Your task to perform on an android device: Open CNN.com Image 0: 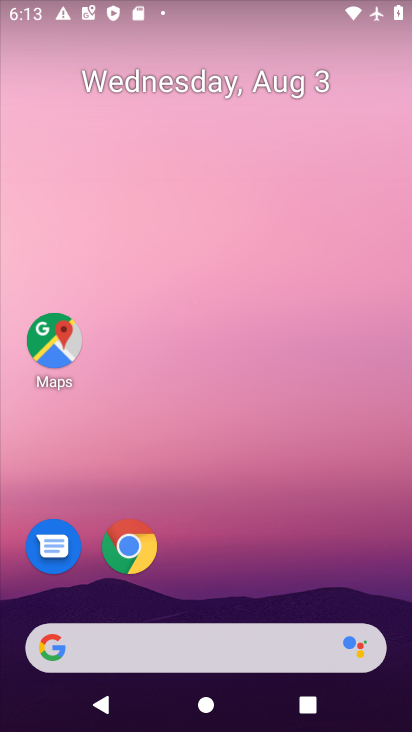
Step 0: click (54, 652)
Your task to perform on an android device: Open CNN.com Image 1: 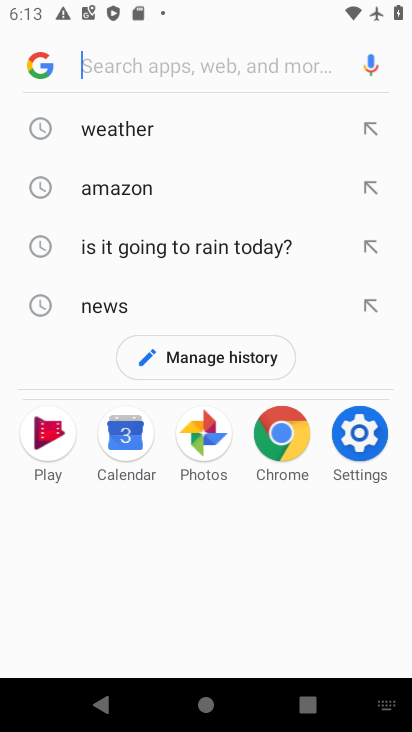
Step 1: type "CNN.com"
Your task to perform on an android device: Open CNN.com Image 2: 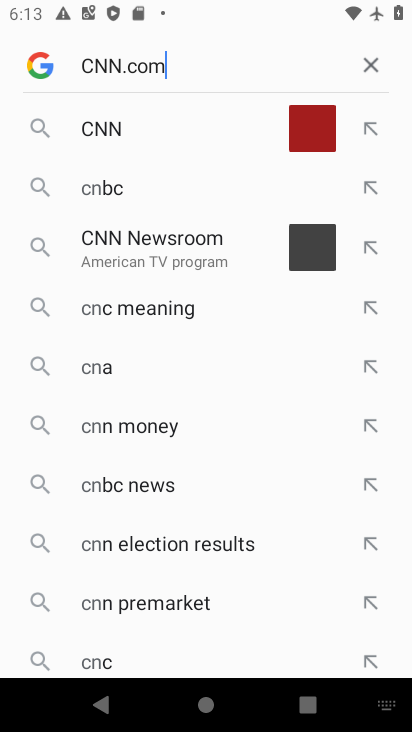
Step 2: press enter
Your task to perform on an android device: Open CNN.com Image 3: 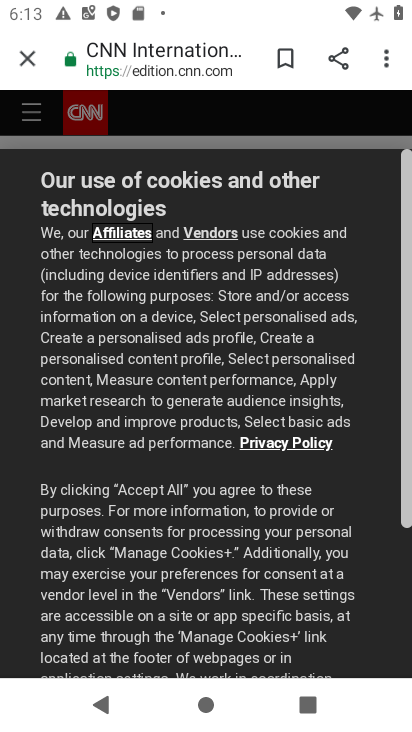
Step 3: task complete